Your task to perform on an android device: set the stopwatch Image 0: 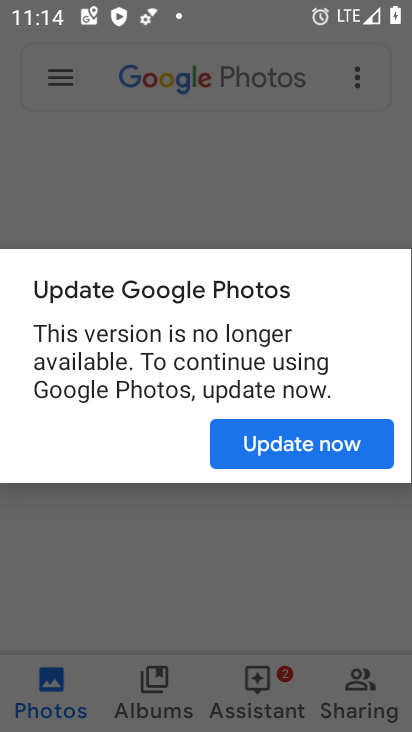
Step 0: click (326, 449)
Your task to perform on an android device: set the stopwatch Image 1: 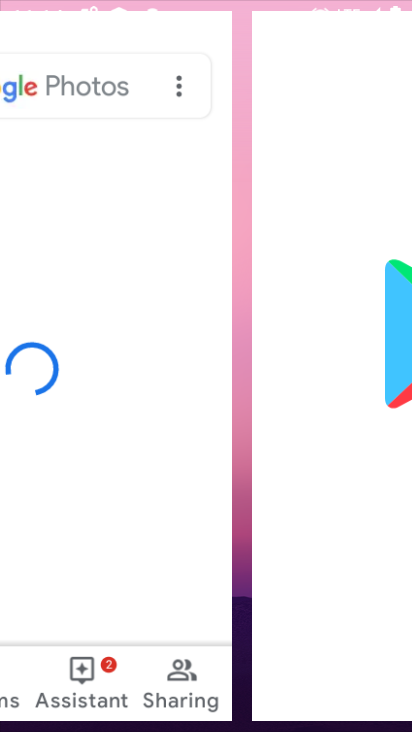
Step 1: press home button
Your task to perform on an android device: set the stopwatch Image 2: 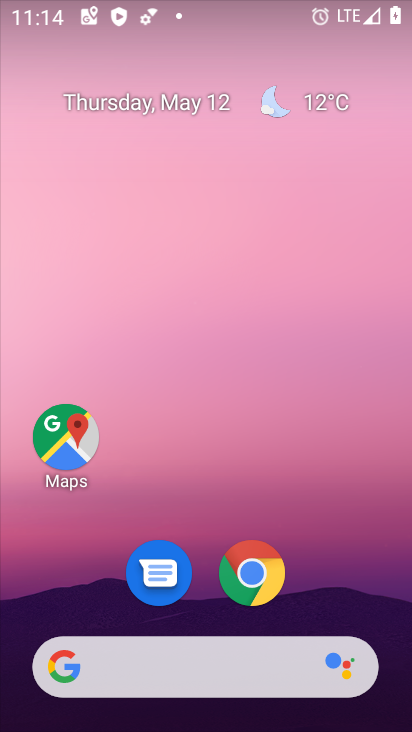
Step 2: drag from (178, 716) to (241, 218)
Your task to perform on an android device: set the stopwatch Image 3: 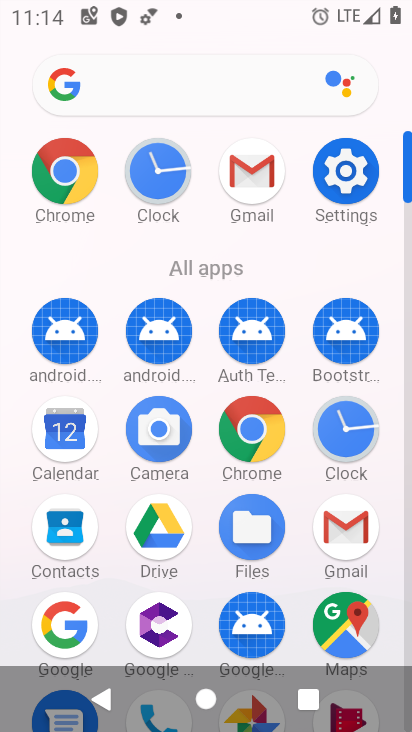
Step 3: click (361, 444)
Your task to perform on an android device: set the stopwatch Image 4: 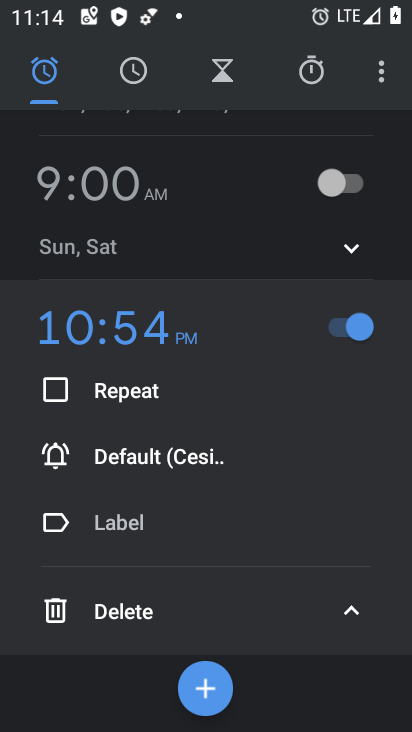
Step 4: click (315, 72)
Your task to perform on an android device: set the stopwatch Image 5: 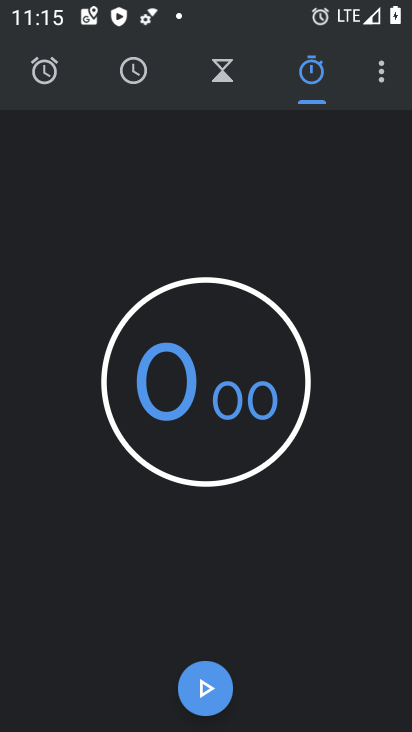
Step 5: task complete